Your task to perform on an android device: When is my next appointment? Image 0: 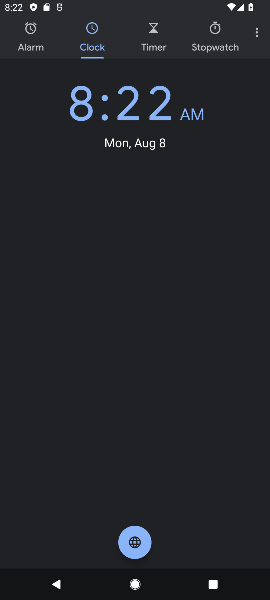
Step 0: press home button
Your task to perform on an android device: When is my next appointment? Image 1: 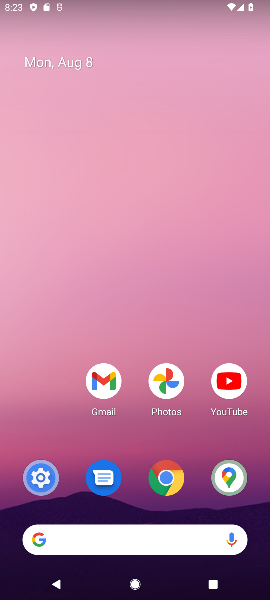
Step 1: drag from (94, 530) to (171, 91)
Your task to perform on an android device: When is my next appointment? Image 2: 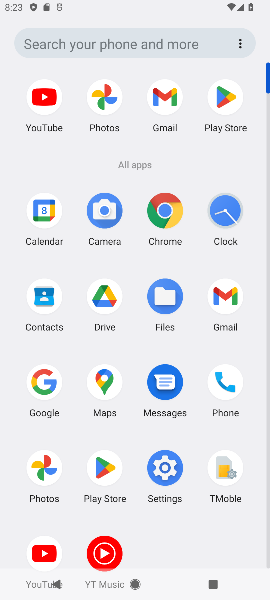
Step 2: click (44, 219)
Your task to perform on an android device: When is my next appointment? Image 3: 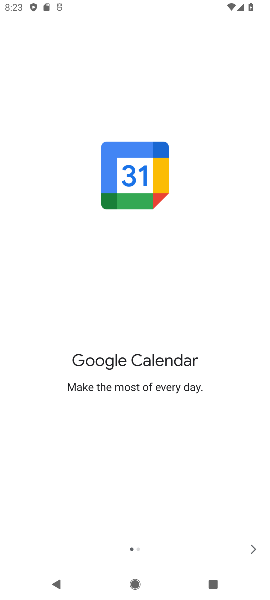
Step 3: click (251, 548)
Your task to perform on an android device: When is my next appointment? Image 4: 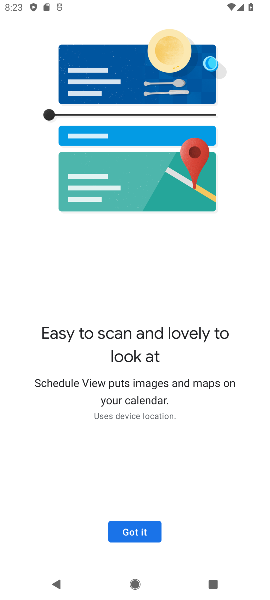
Step 4: click (251, 548)
Your task to perform on an android device: When is my next appointment? Image 5: 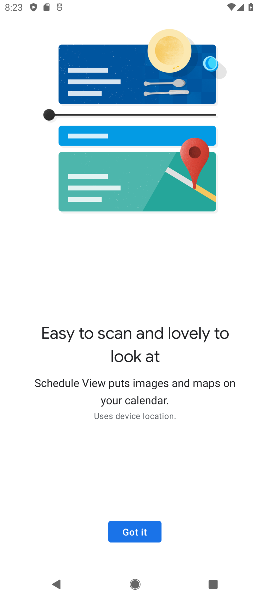
Step 5: click (142, 528)
Your task to perform on an android device: When is my next appointment? Image 6: 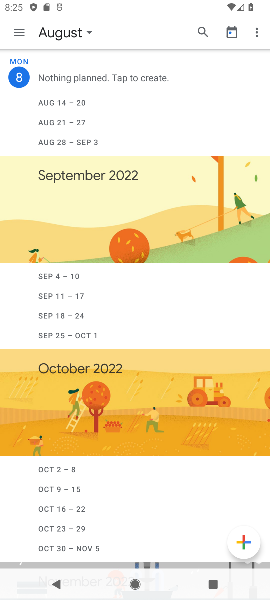
Step 6: task complete